Your task to perform on an android device: open the mobile data screen to see how much data has been used Image 0: 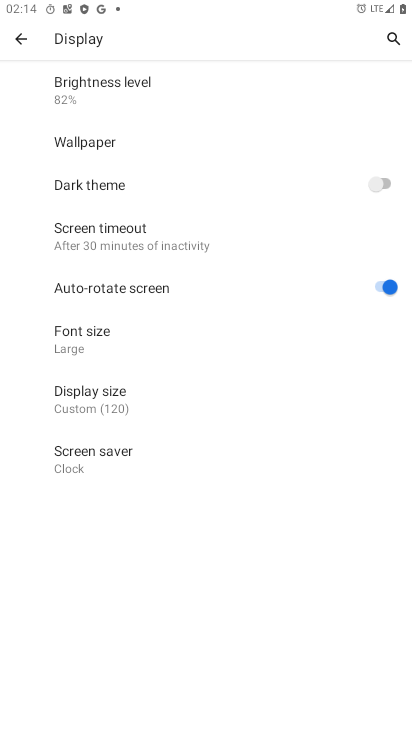
Step 0: press home button
Your task to perform on an android device: open the mobile data screen to see how much data has been used Image 1: 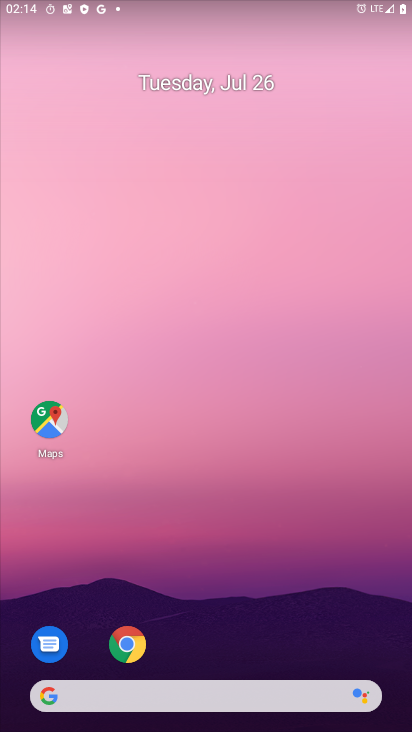
Step 1: drag from (245, 668) to (240, 67)
Your task to perform on an android device: open the mobile data screen to see how much data has been used Image 2: 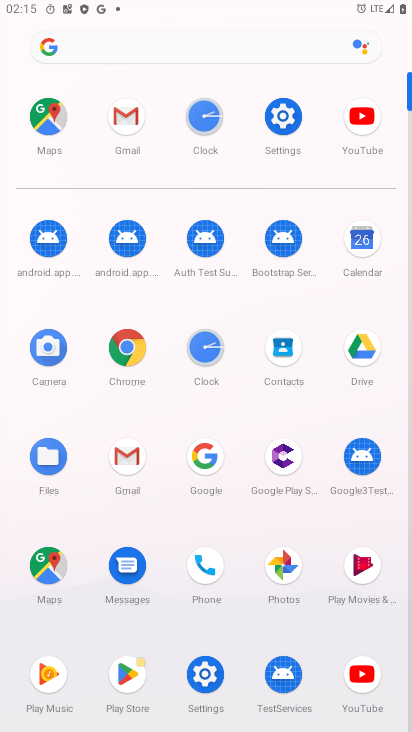
Step 2: click (282, 118)
Your task to perform on an android device: open the mobile data screen to see how much data has been used Image 3: 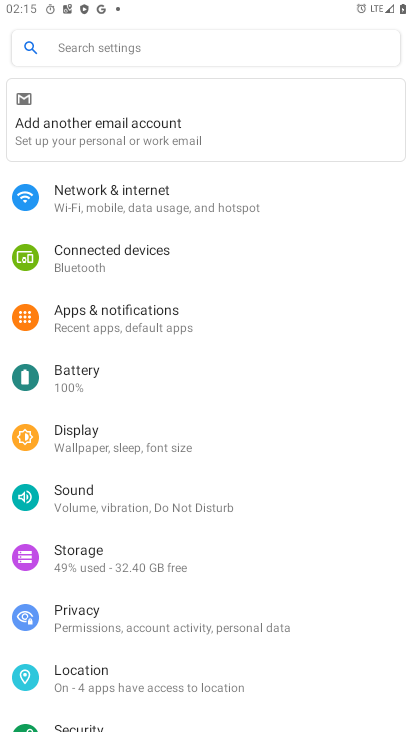
Step 3: click (142, 199)
Your task to perform on an android device: open the mobile data screen to see how much data has been used Image 4: 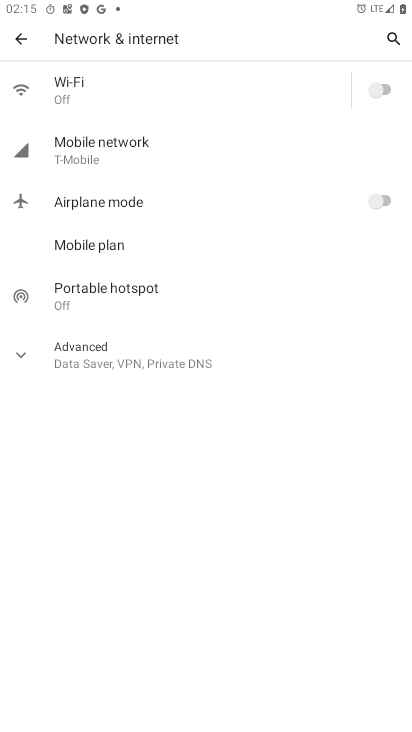
Step 4: click (83, 153)
Your task to perform on an android device: open the mobile data screen to see how much data has been used Image 5: 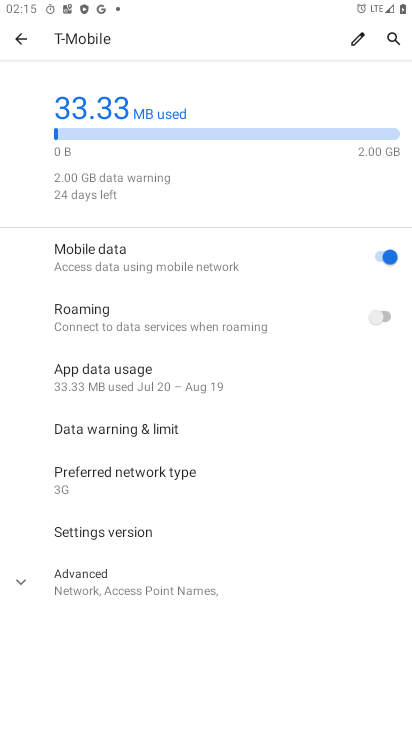
Step 5: click (98, 382)
Your task to perform on an android device: open the mobile data screen to see how much data has been used Image 6: 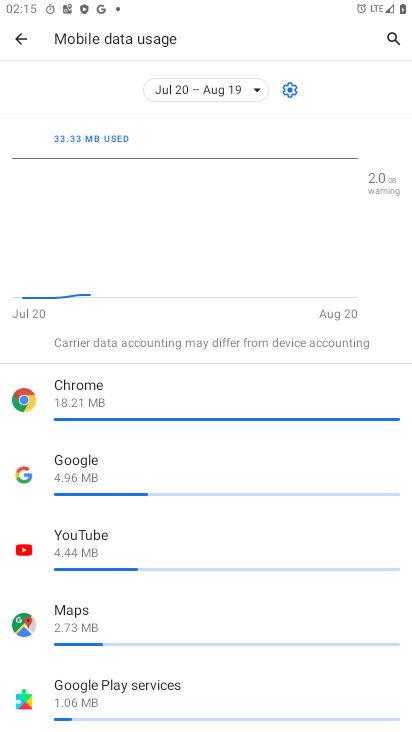
Step 6: task complete